Your task to perform on an android device: toggle priority inbox in the gmail app Image 0: 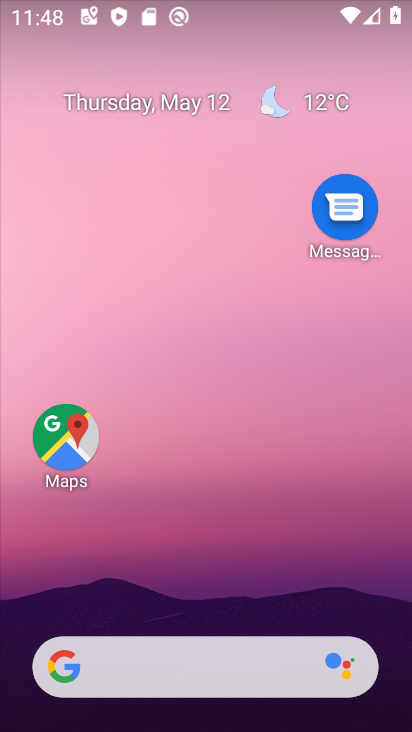
Step 0: press home button
Your task to perform on an android device: toggle priority inbox in the gmail app Image 1: 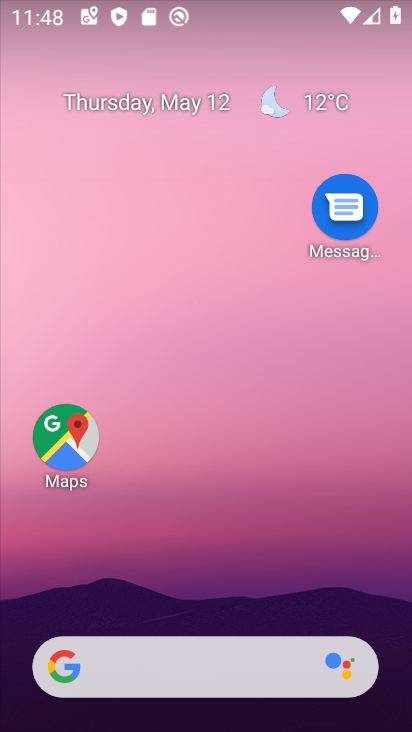
Step 1: drag from (265, 577) to (164, 220)
Your task to perform on an android device: toggle priority inbox in the gmail app Image 2: 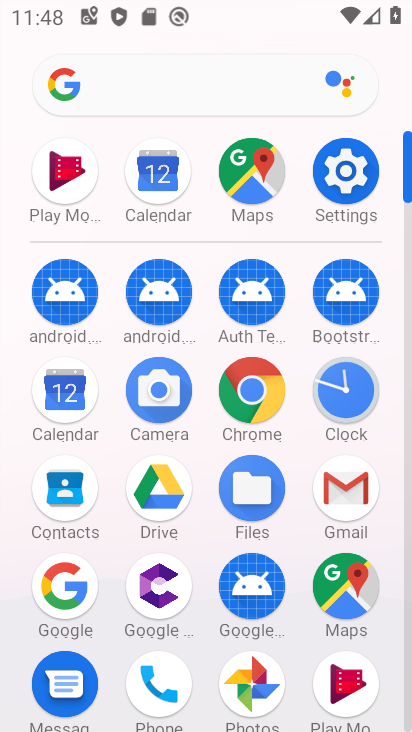
Step 2: click (346, 478)
Your task to perform on an android device: toggle priority inbox in the gmail app Image 3: 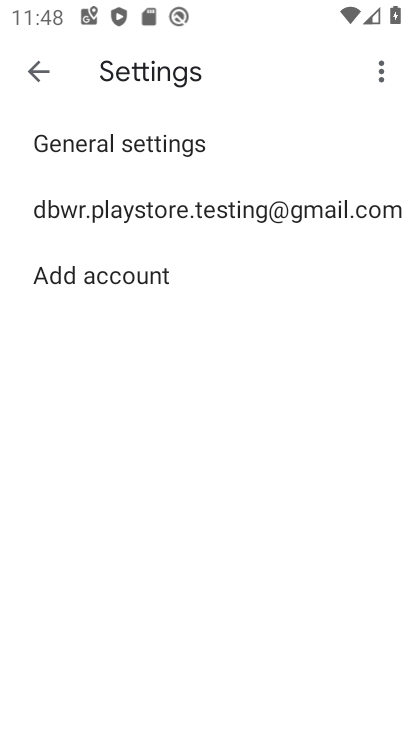
Step 3: click (163, 216)
Your task to perform on an android device: toggle priority inbox in the gmail app Image 4: 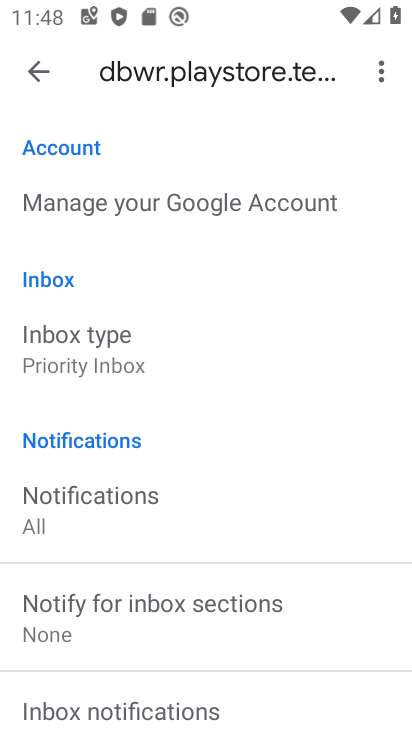
Step 4: click (114, 356)
Your task to perform on an android device: toggle priority inbox in the gmail app Image 5: 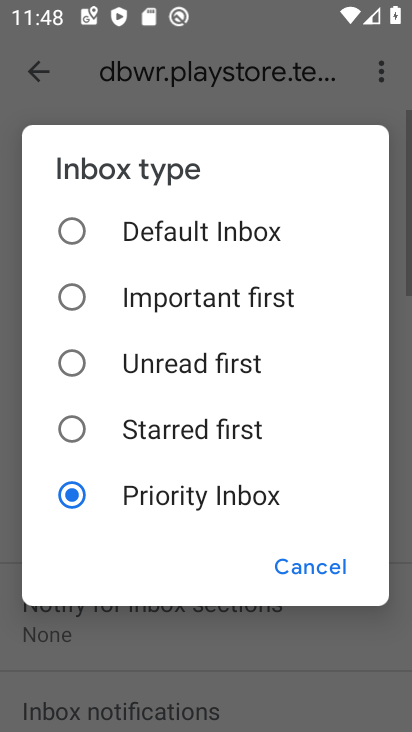
Step 5: click (144, 234)
Your task to perform on an android device: toggle priority inbox in the gmail app Image 6: 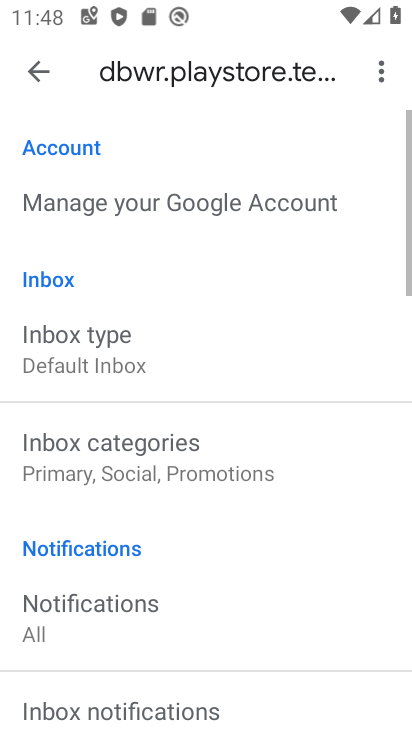
Step 6: task complete